Your task to perform on an android device: open a new tab in the chrome app Image 0: 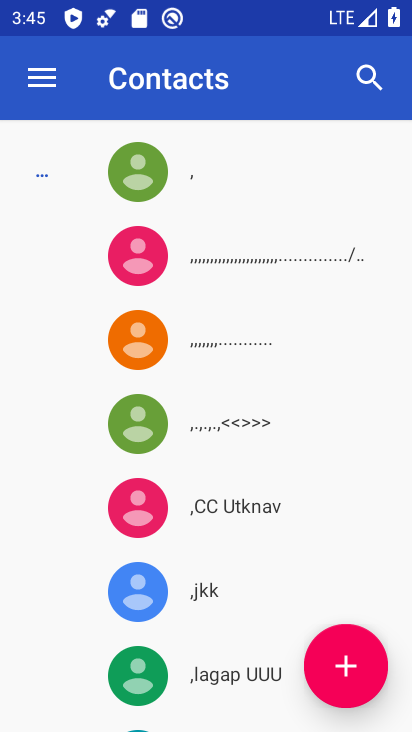
Step 0: press home button
Your task to perform on an android device: open a new tab in the chrome app Image 1: 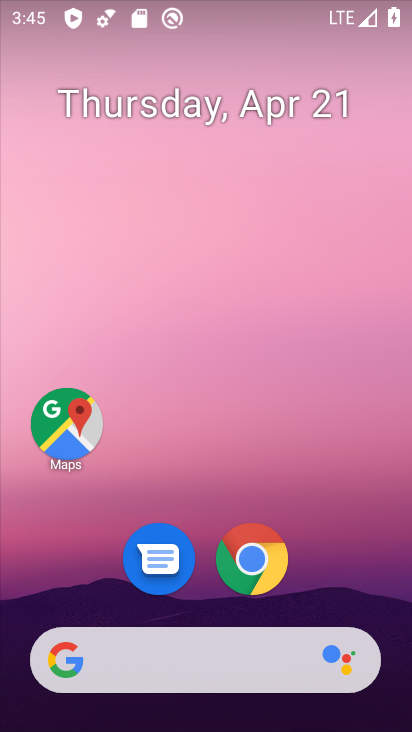
Step 1: click (251, 566)
Your task to perform on an android device: open a new tab in the chrome app Image 2: 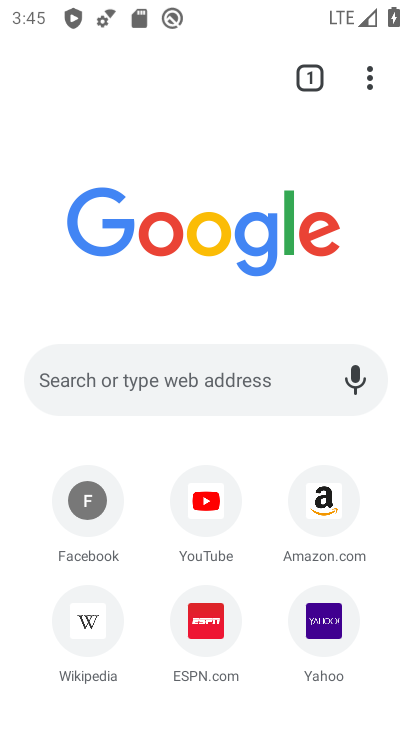
Step 2: click (370, 72)
Your task to perform on an android device: open a new tab in the chrome app Image 3: 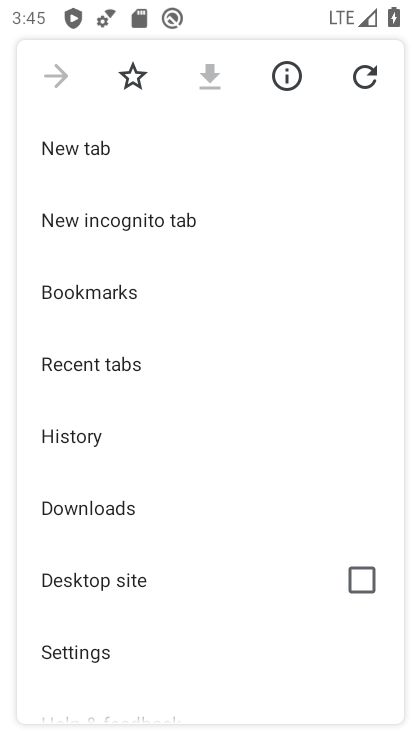
Step 3: click (64, 144)
Your task to perform on an android device: open a new tab in the chrome app Image 4: 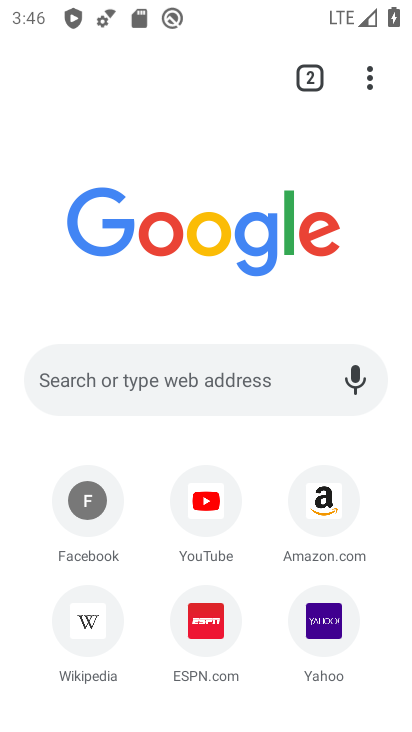
Step 4: task complete